Your task to perform on an android device: uninstall "Clock" Image 0: 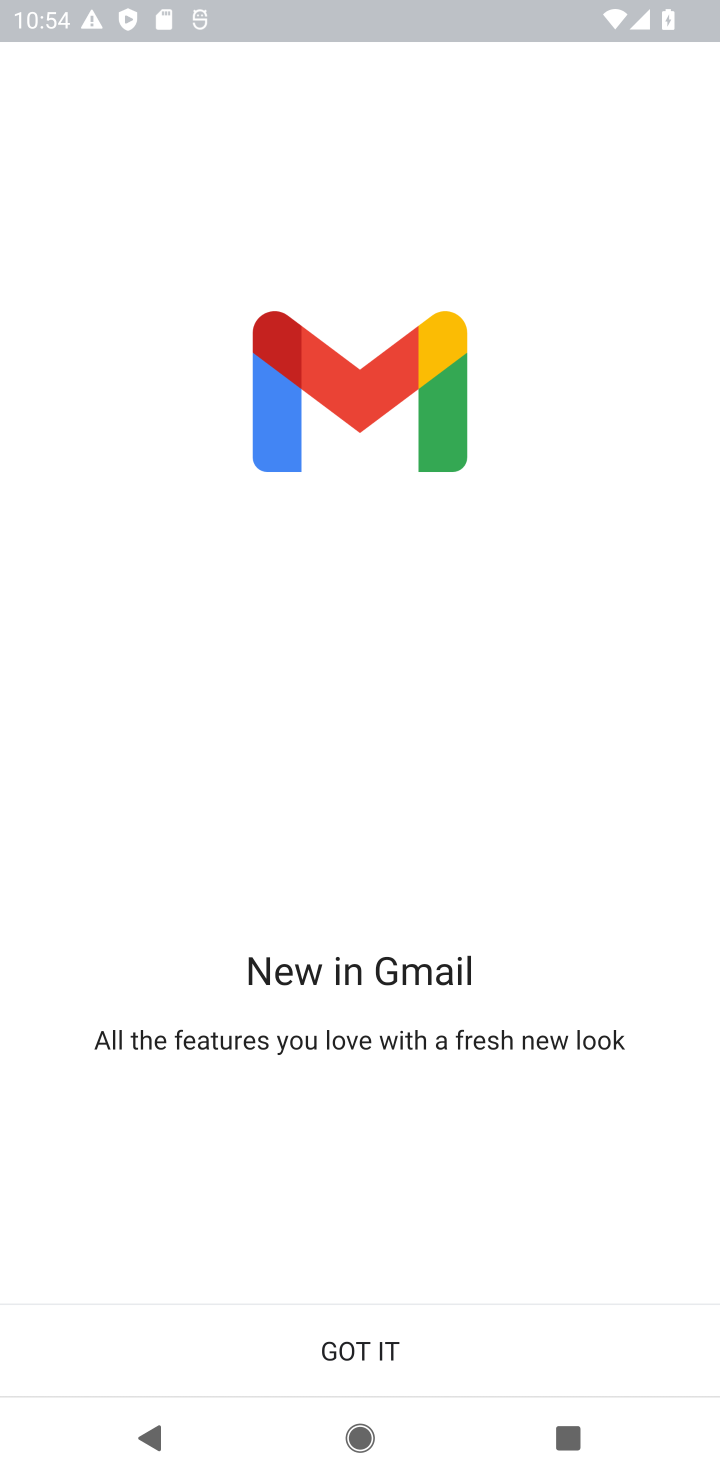
Step 0: press home button
Your task to perform on an android device: uninstall "Clock" Image 1: 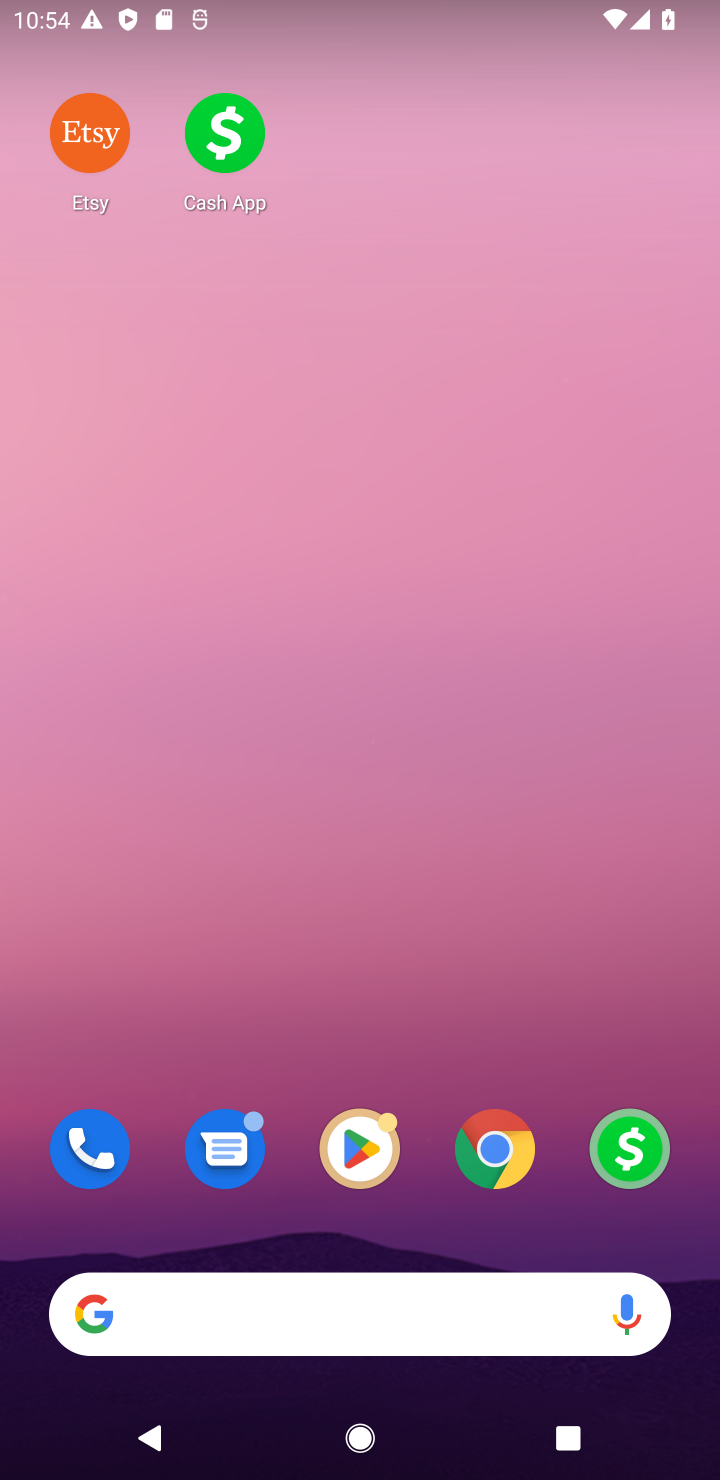
Step 1: click (349, 1140)
Your task to perform on an android device: uninstall "Clock" Image 2: 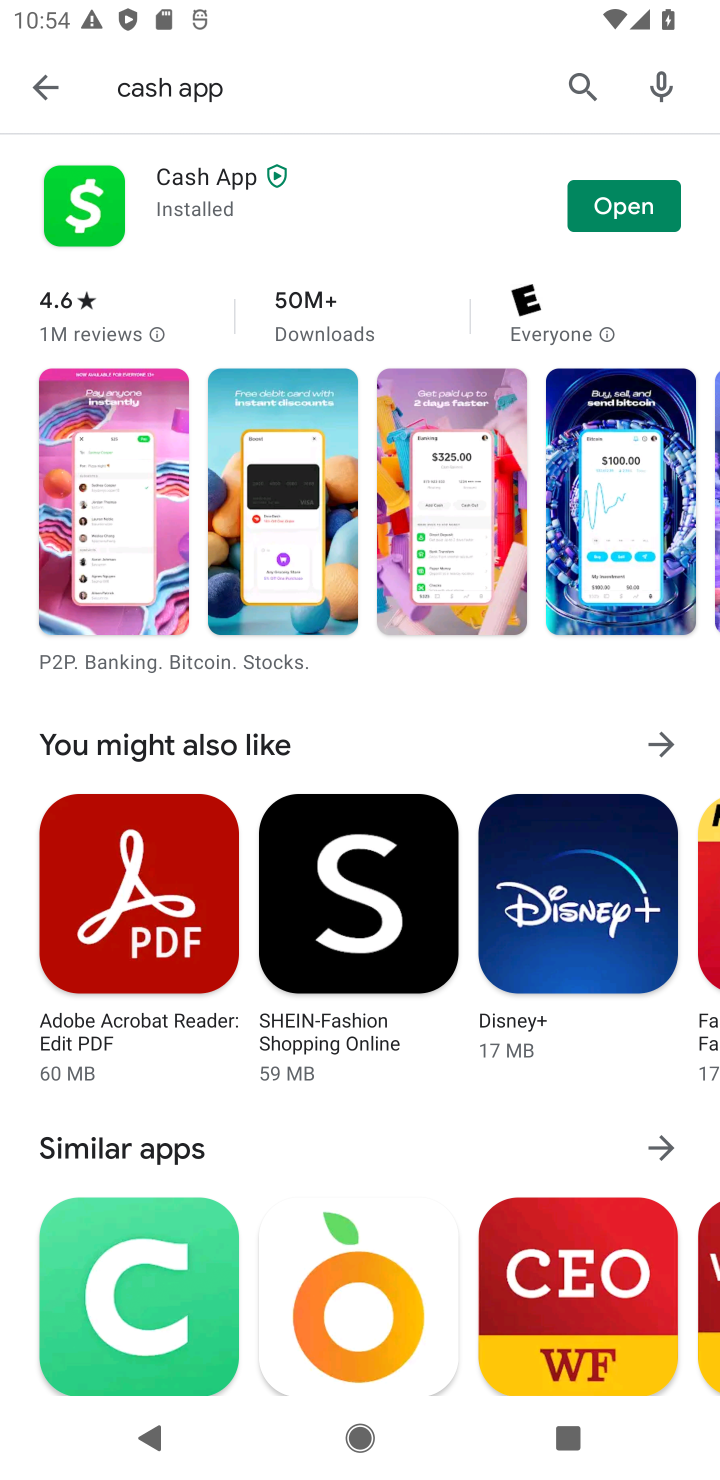
Step 2: click (43, 86)
Your task to perform on an android device: uninstall "Clock" Image 3: 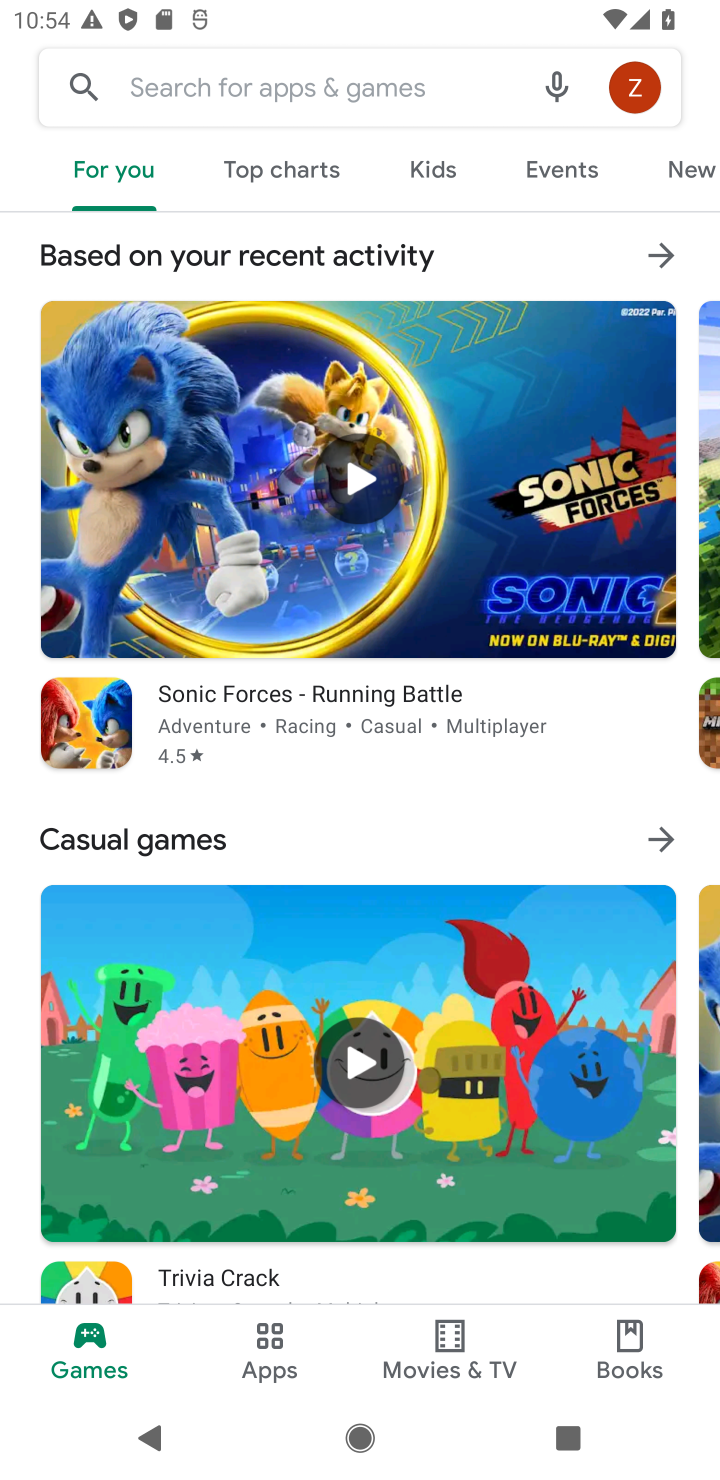
Step 3: click (261, 98)
Your task to perform on an android device: uninstall "Clock" Image 4: 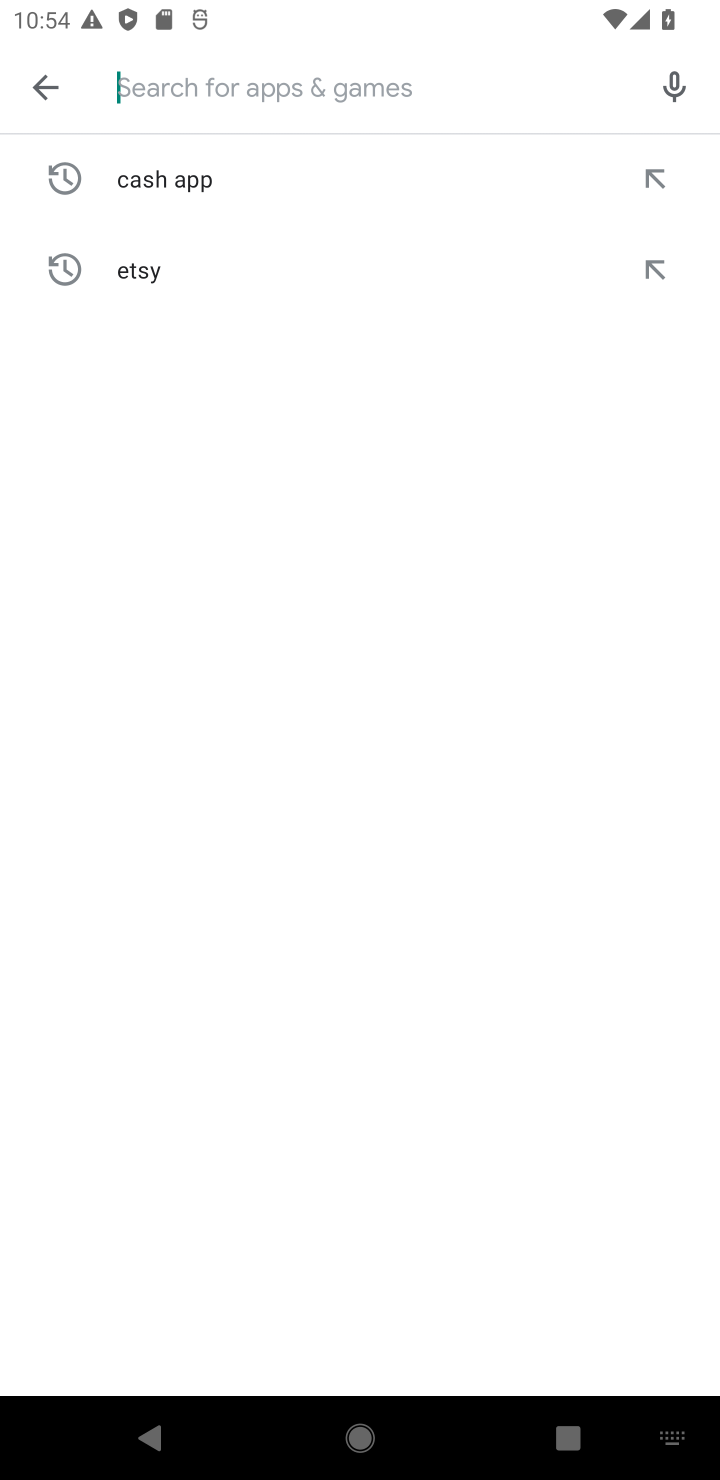
Step 4: type "Clock"
Your task to perform on an android device: uninstall "Clock" Image 5: 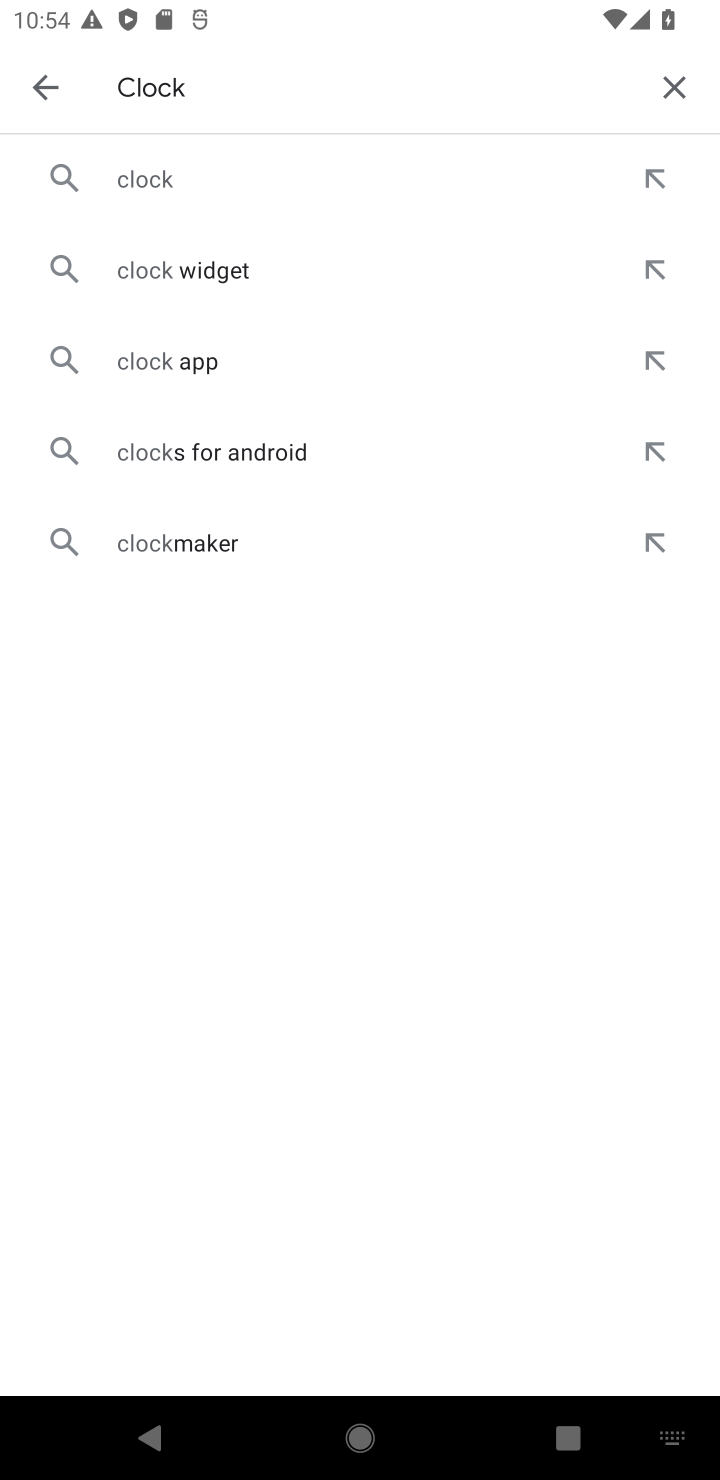
Step 5: click (143, 194)
Your task to perform on an android device: uninstall "Clock" Image 6: 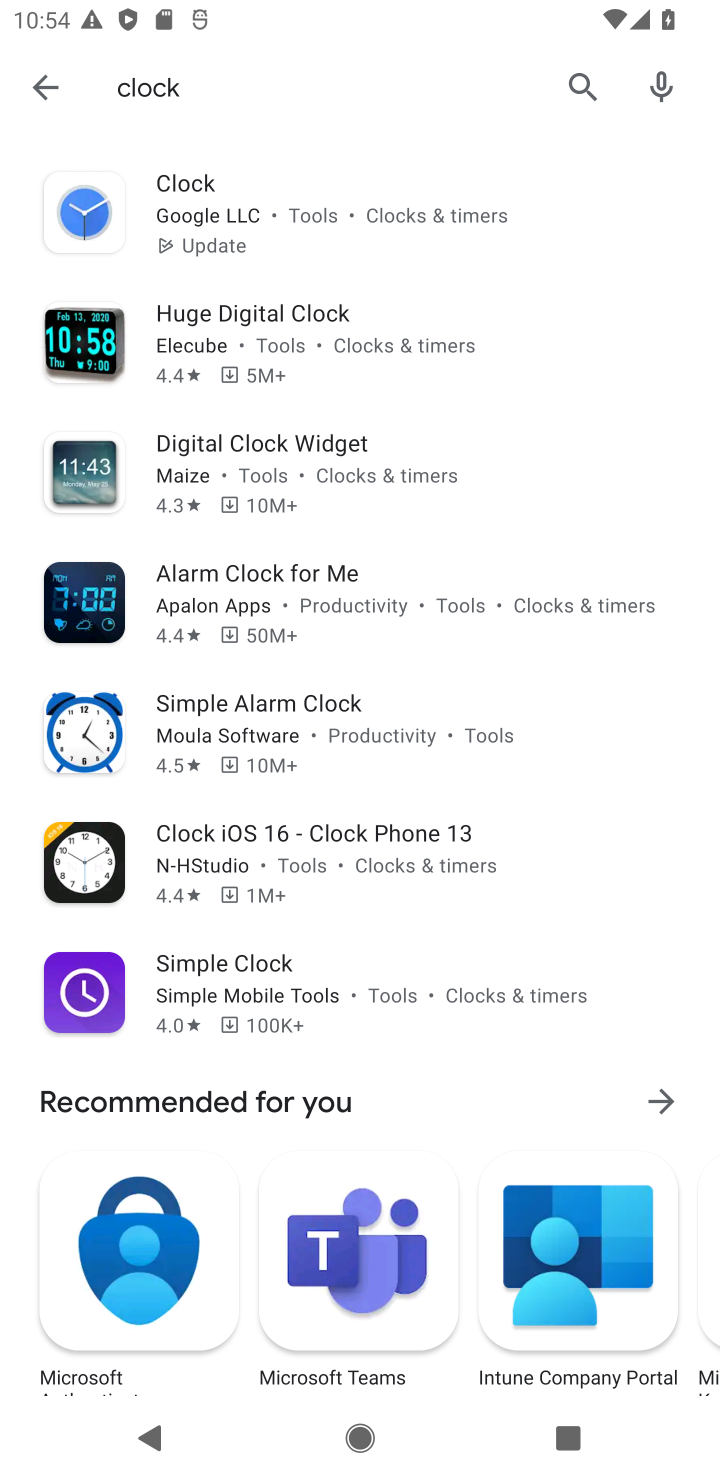
Step 6: click (203, 211)
Your task to perform on an android device: uninstall "Clock" Image 7: 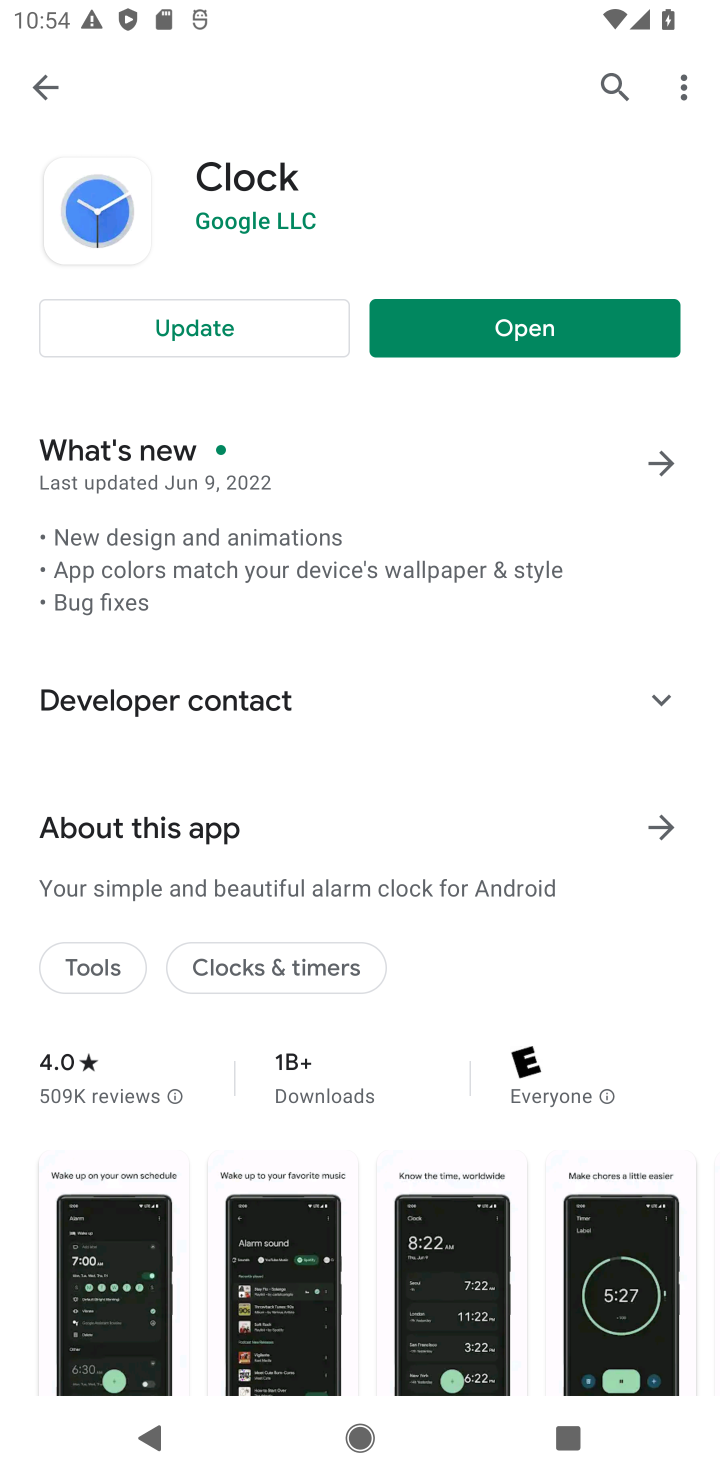
Step 7: click (460, 341)
Your task to perform on an android device: uninstall "Clock" Image 8: 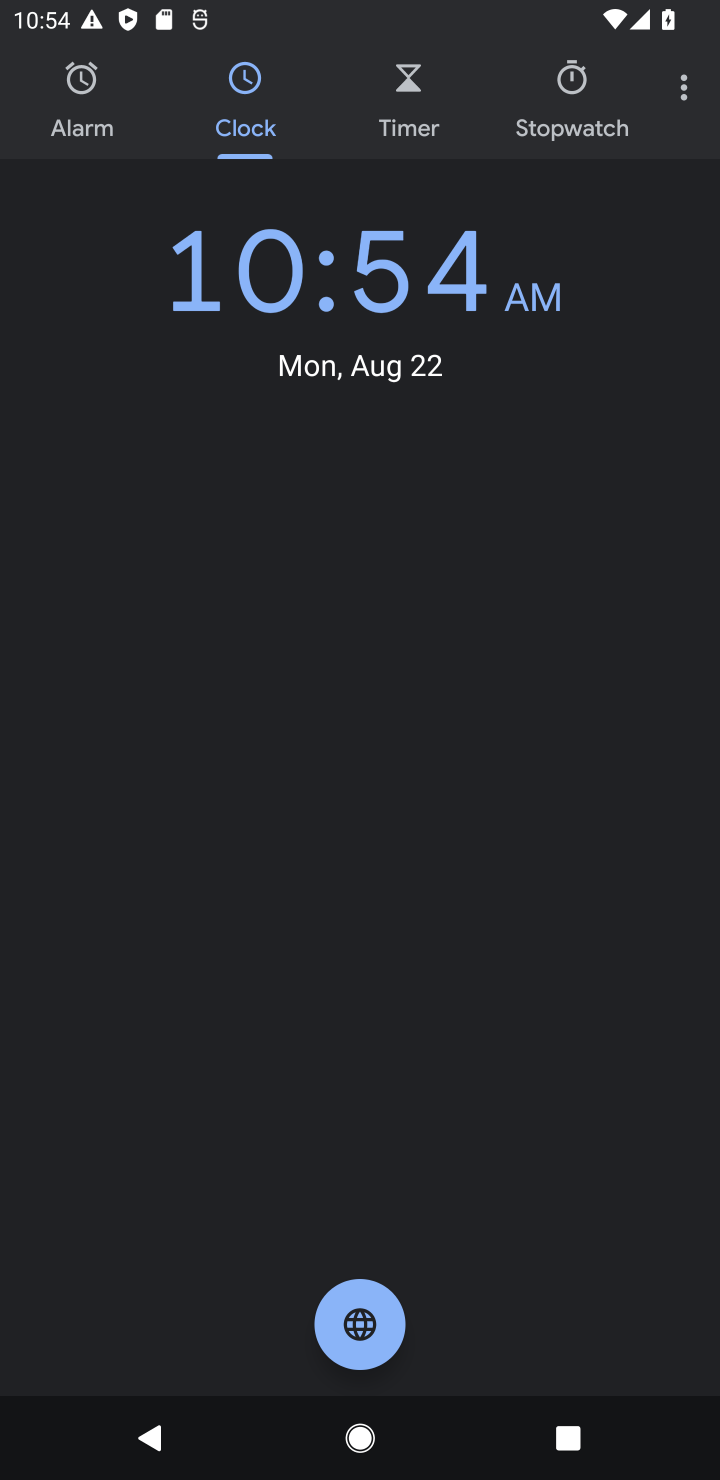
Step 8: press back button
Your task to perform on an android device: uninstall "Clock" Image 9: 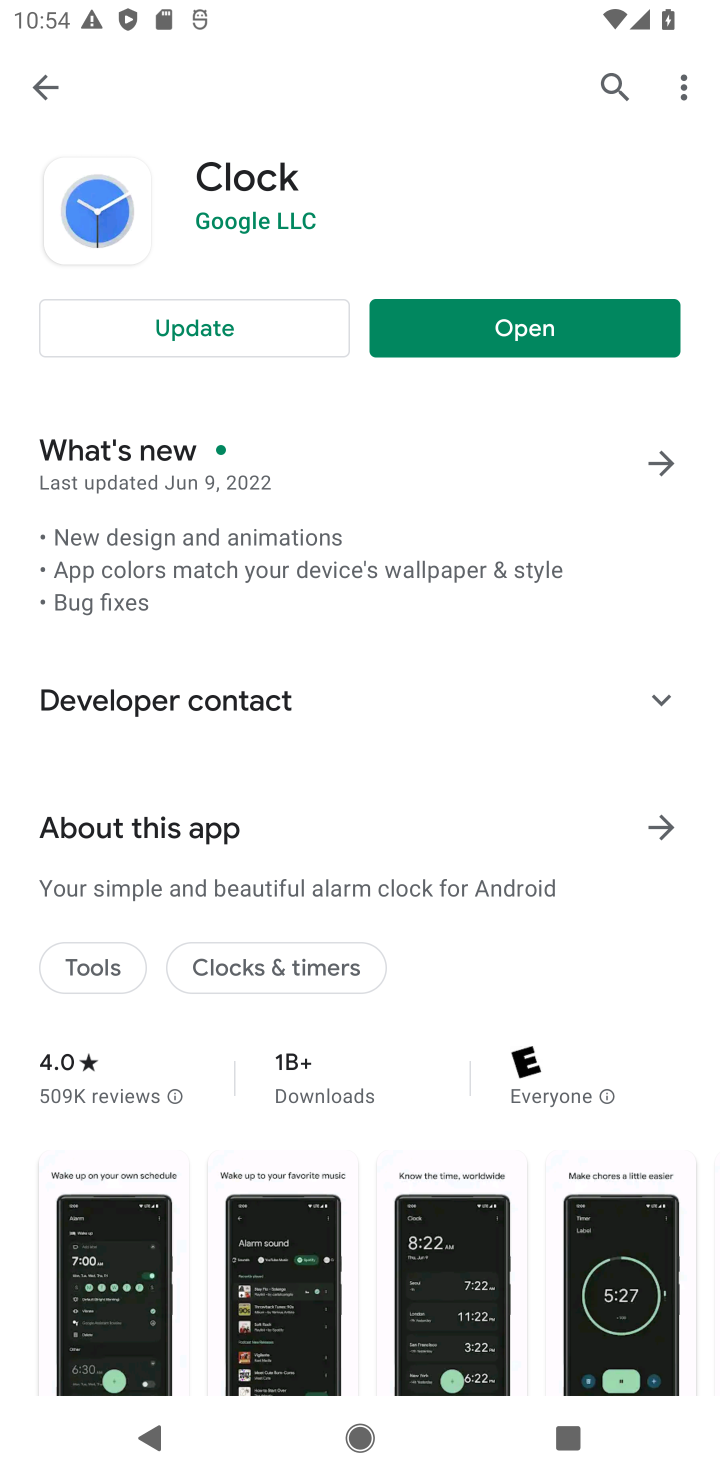
Step 9: click (230, 334)
Your task to perform on an android device: uninstall "Clock" Image 10: 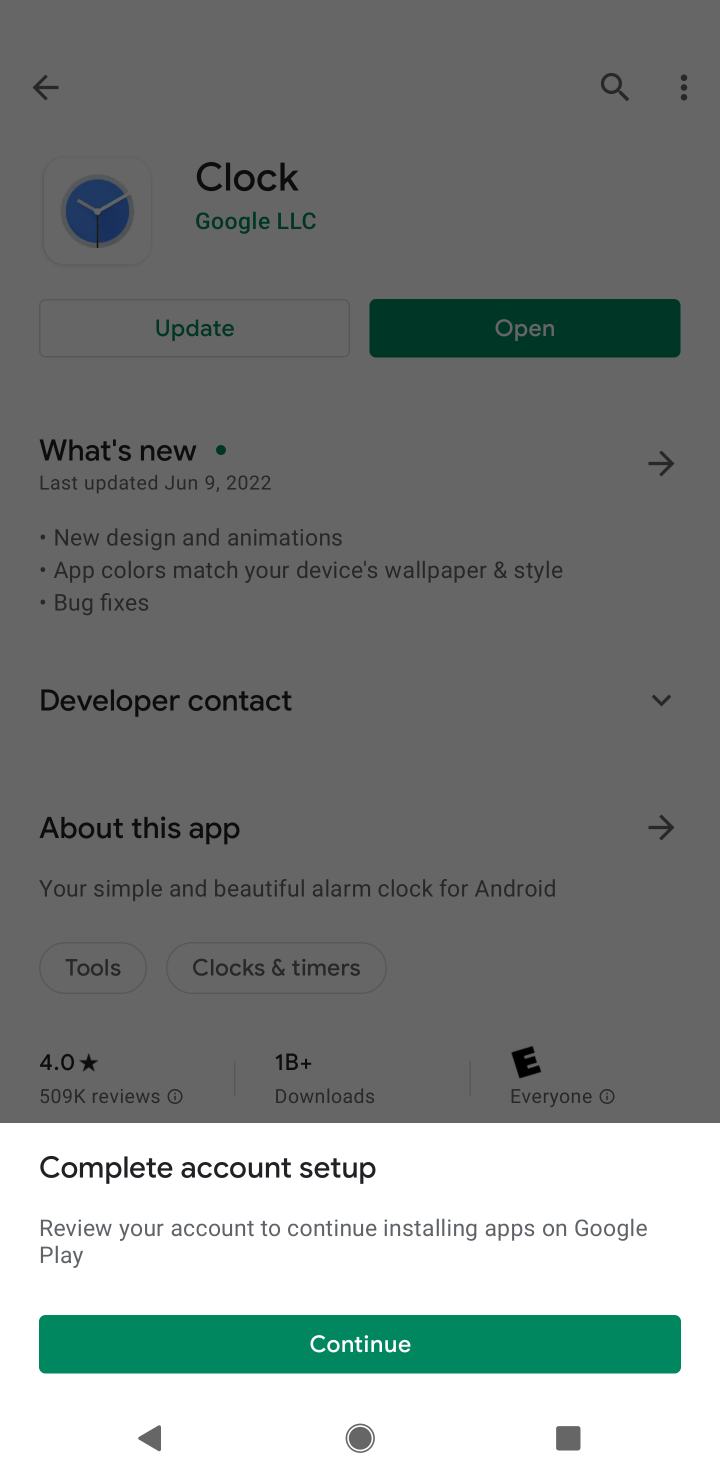
Step 10: click (397, 1342)
Your task to perform on an android device: uninstall "Clock" Image 11: 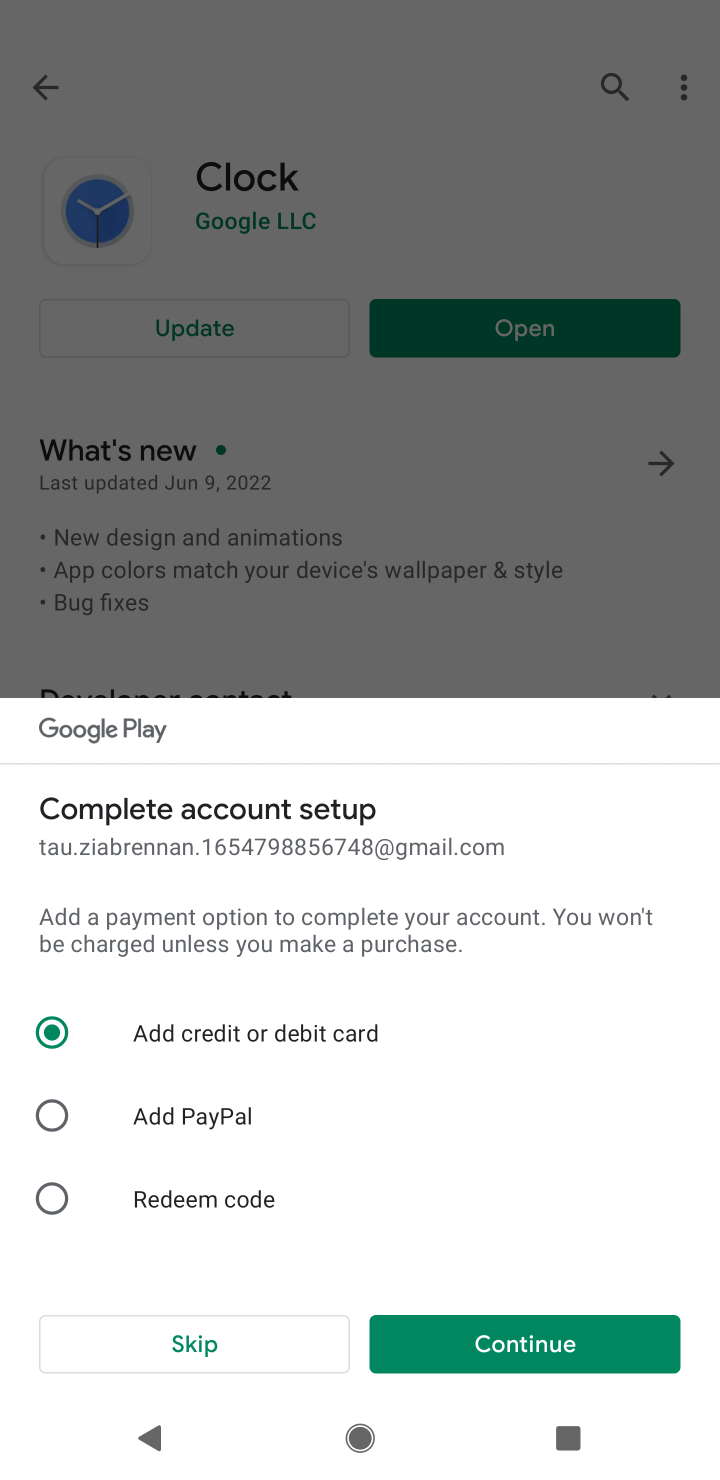
Step 11: click (165, 1347)
Your task to perform on an android device: uninstall "Clock" Image 12: 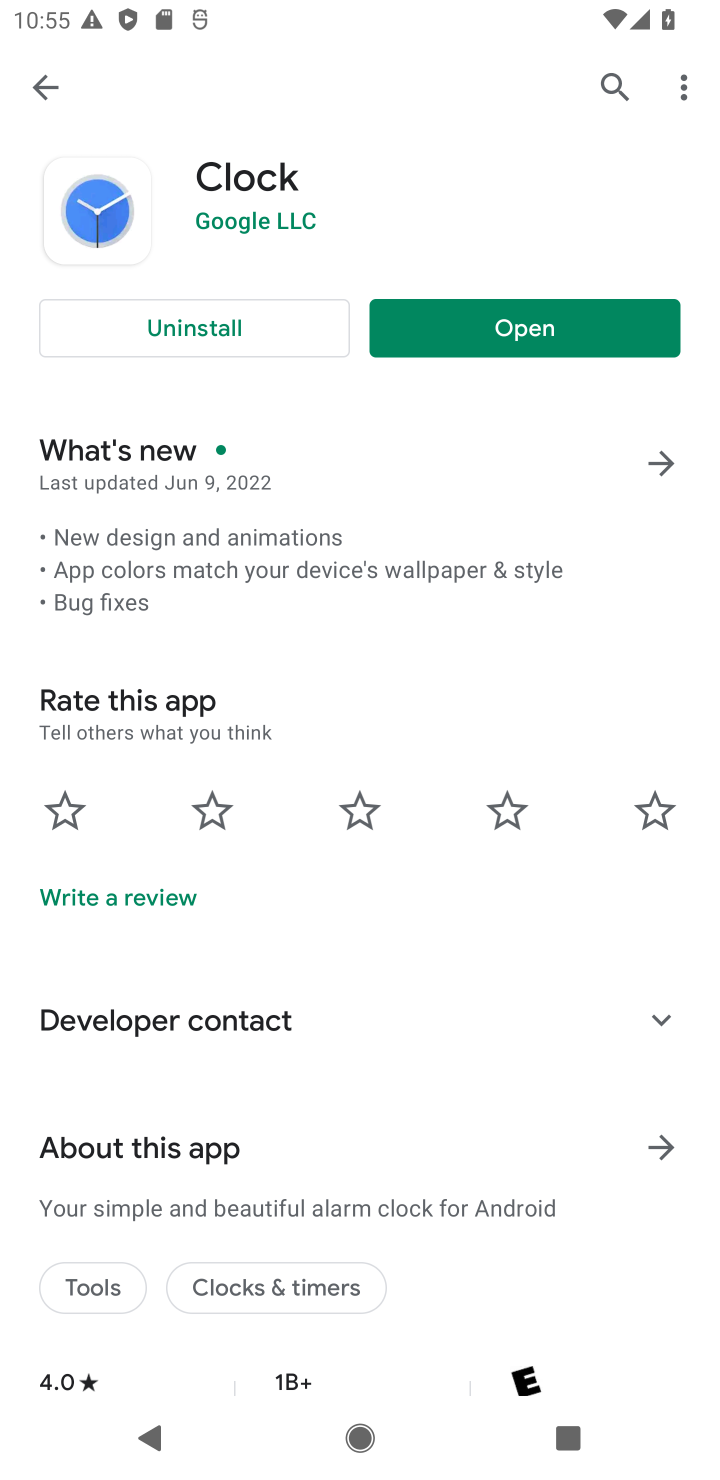
Step 12: click (181, 335)
Your task to perform on an android device: uninstall "Clock" Image 13: 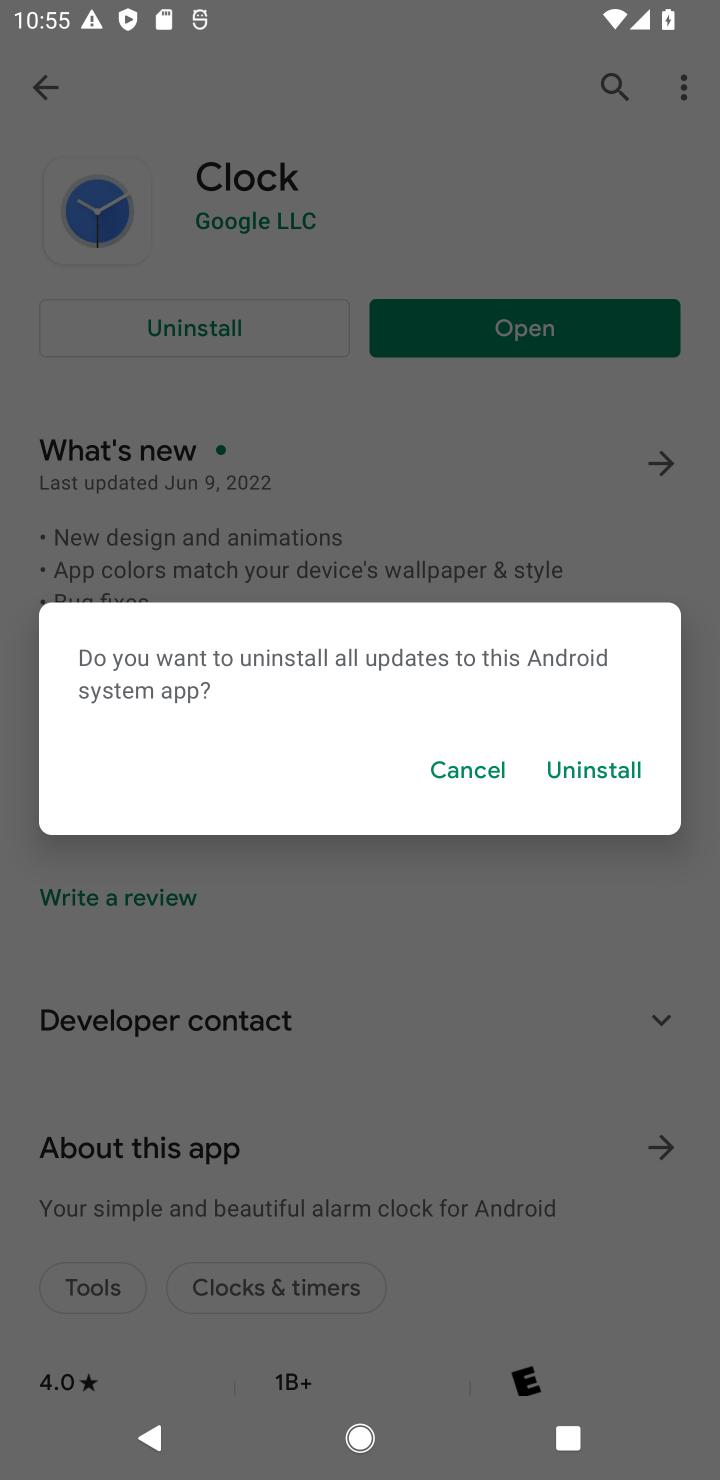
Step 13: click (597, 769)
Your task to perform on an android device: uninstall "Clock" Image 14: 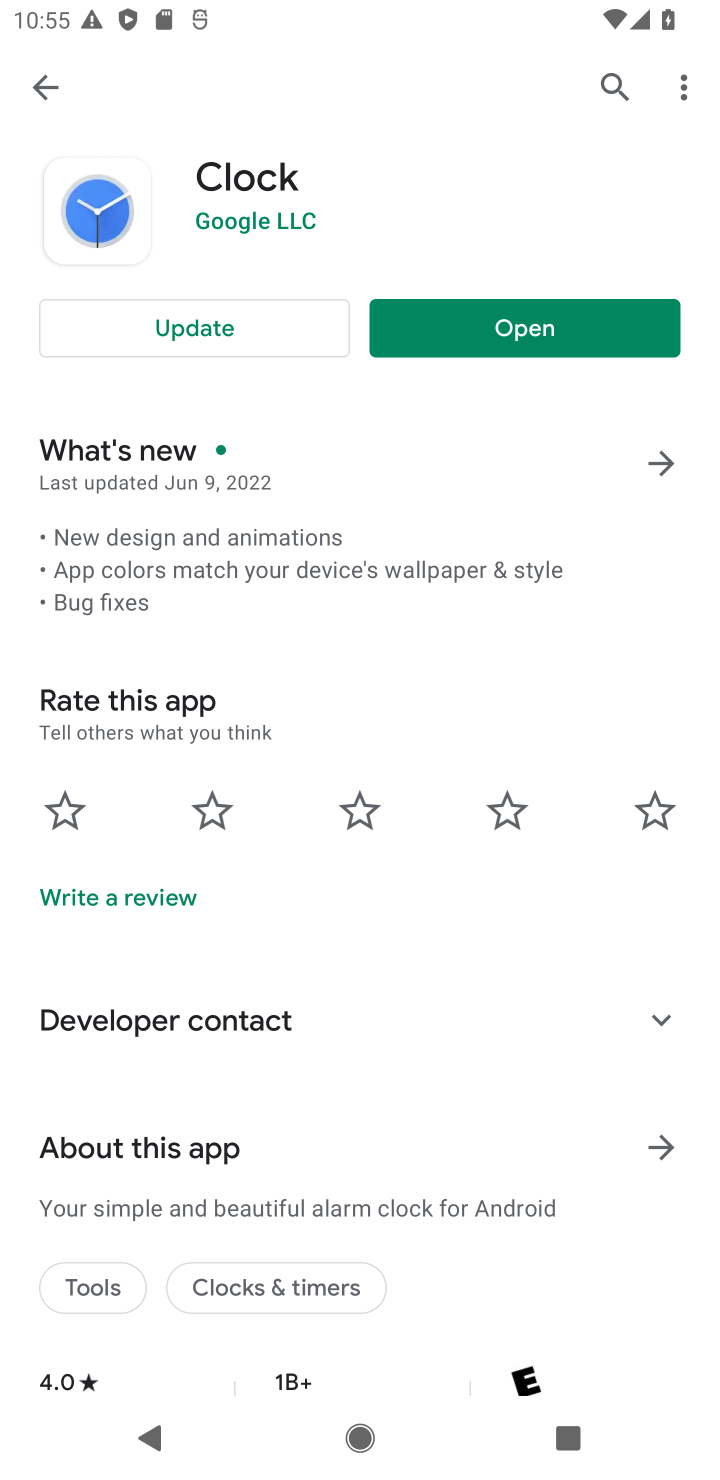
Step 14: task complete